Your task to perform on an android device: move a message to another label in the gmail app Image 0: 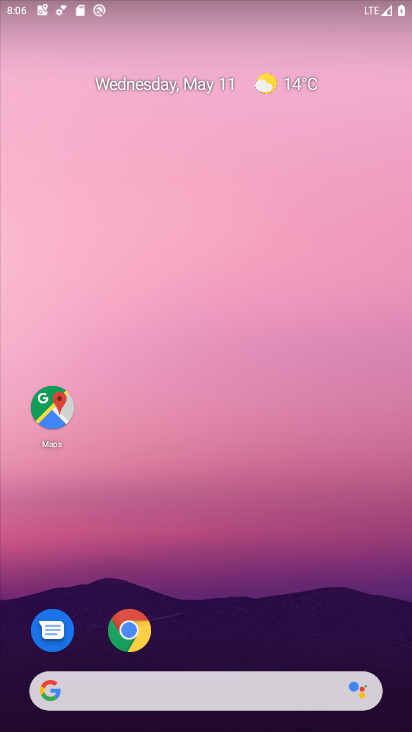
Step 0: press home button
Your task to perform on an android device: move a message to another label in the gmail app Image 1: 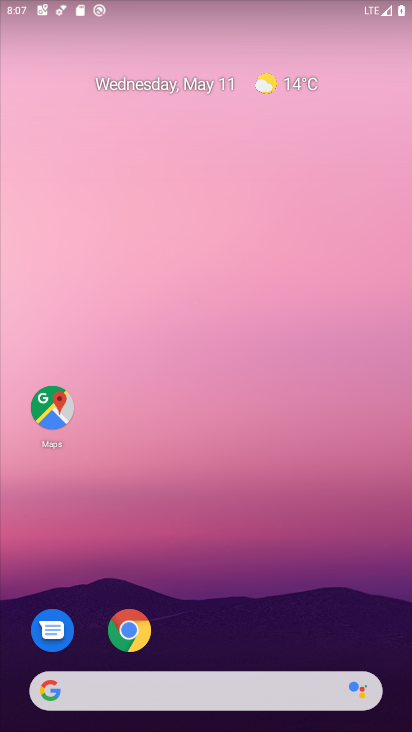
Step 1: drag from (59, 565) to (212, 233)
Your task to perform on an android device: move a message to another label in the gmail app Image 2: 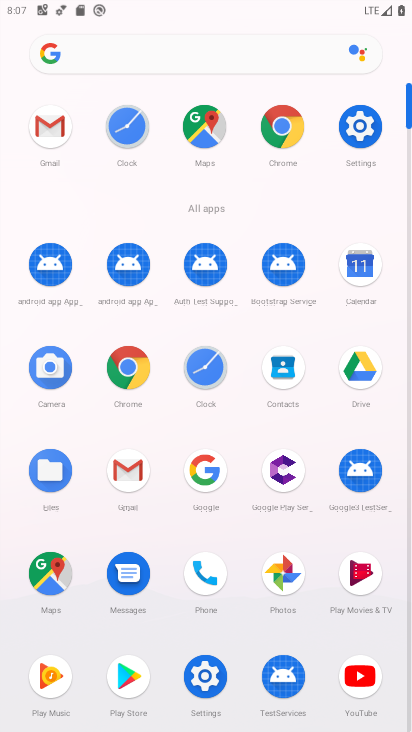
Step 2: click (122, 475)
Your task to perform on an android device: move a message to another label in the gmail app Image 3: 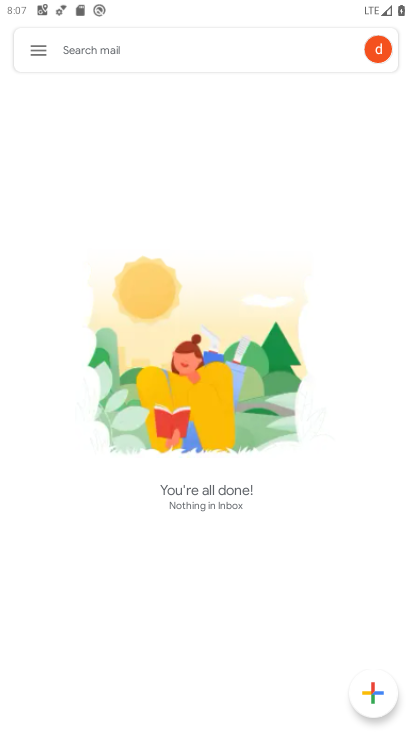
Step 3: click (47, 48)
Your task to perform on an android device: move a message to another label in the gmail app Image 4: 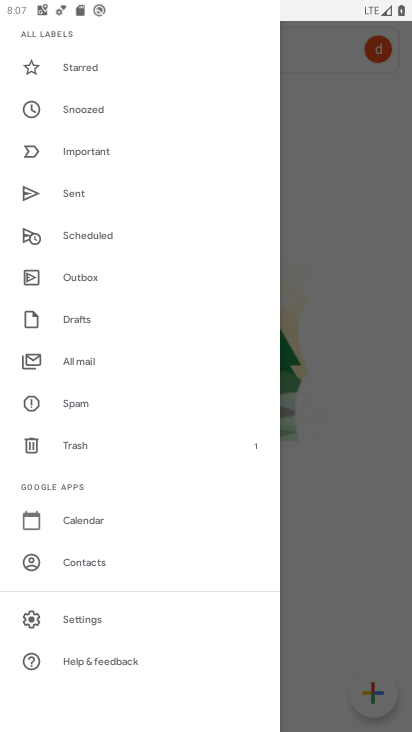
Step 4: click (95, 363)
Your task to perform on an android device: move a message to another label in the gmail app Image 5: 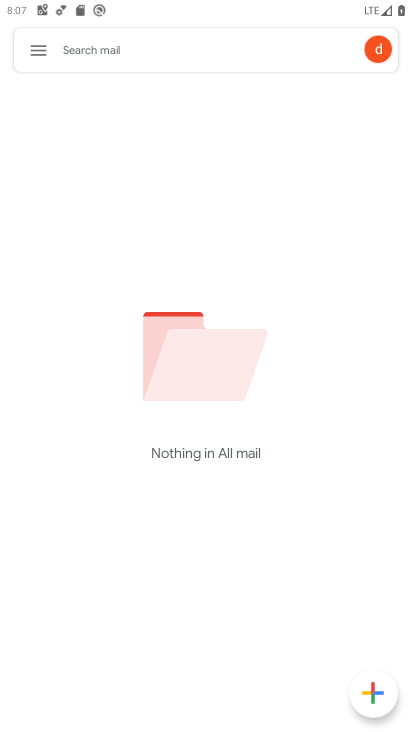
Step 5: task complete